Your task to perform on an android device: Open Chrome and go to the settings page Image 0: 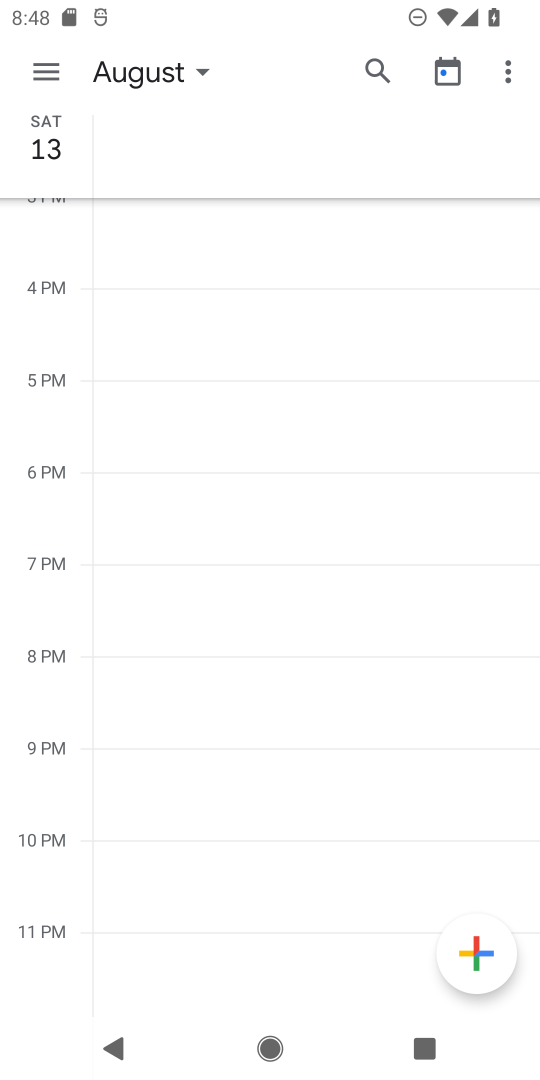
Step 0: press home button
Your task to perform on an android device: Open Chrome and go to the settings page Image 1: 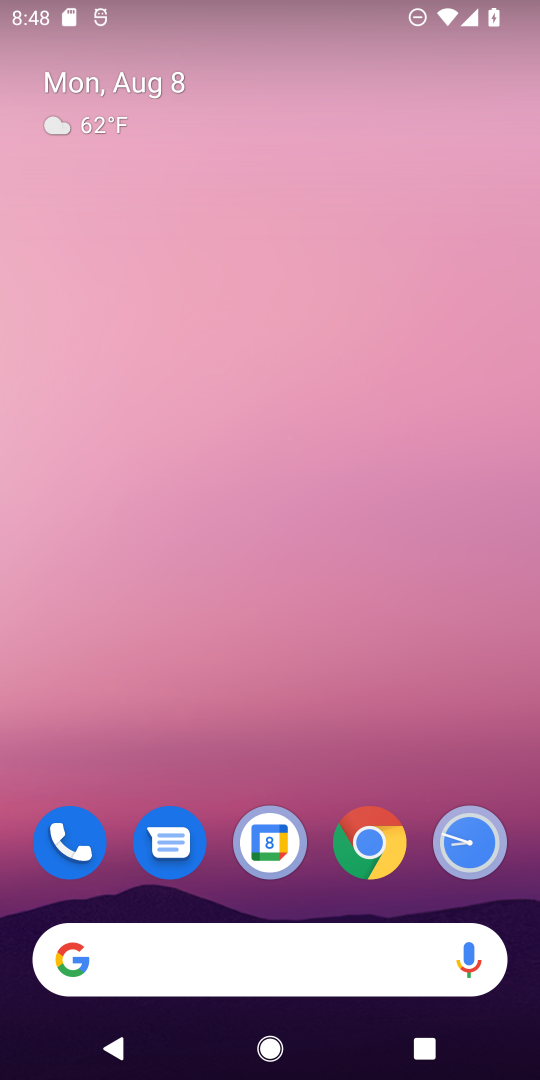
Step 1: click (371, 842)
Your task to perform on an android device: Open Chrome and go to the settings page Image 2: 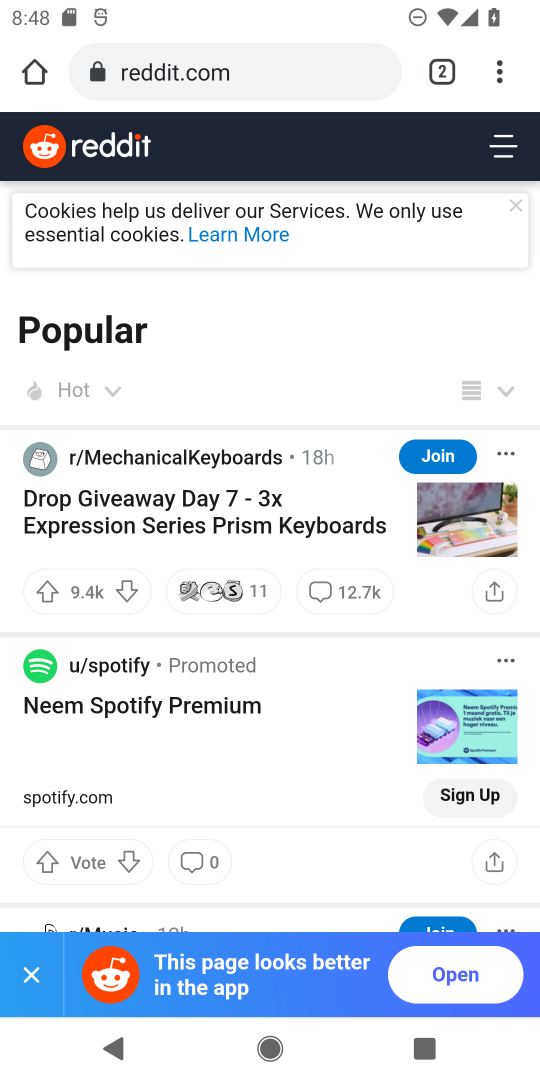
Step 2: click (500, 68)
Your task to perform on an android device: Open Chrome and go to the settings page Image 3: 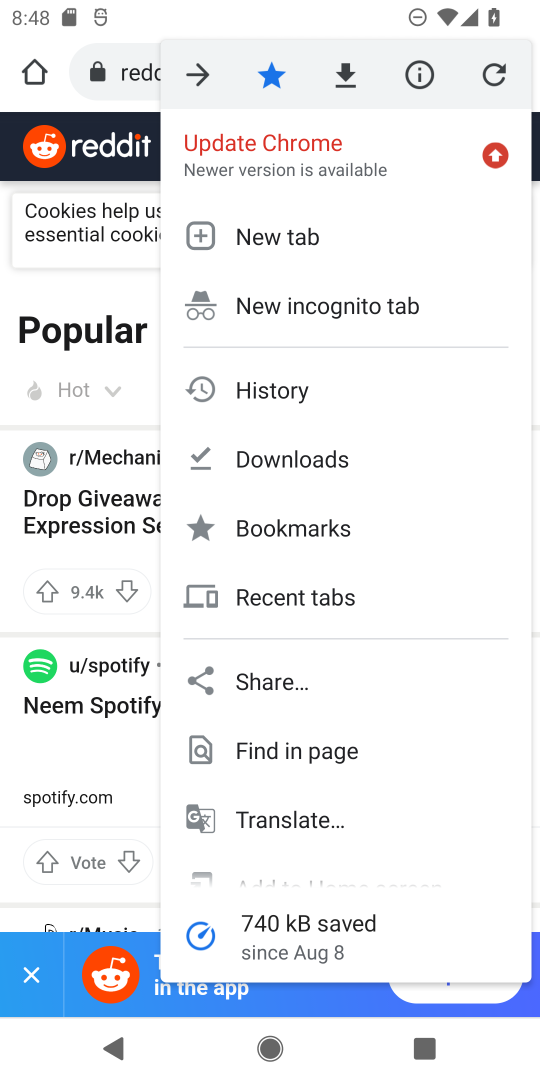
Step 3: drag from (354, 771) to (374, 218)
Your task to perform on an android device: Open Chrome and go to the settings page Image 4: 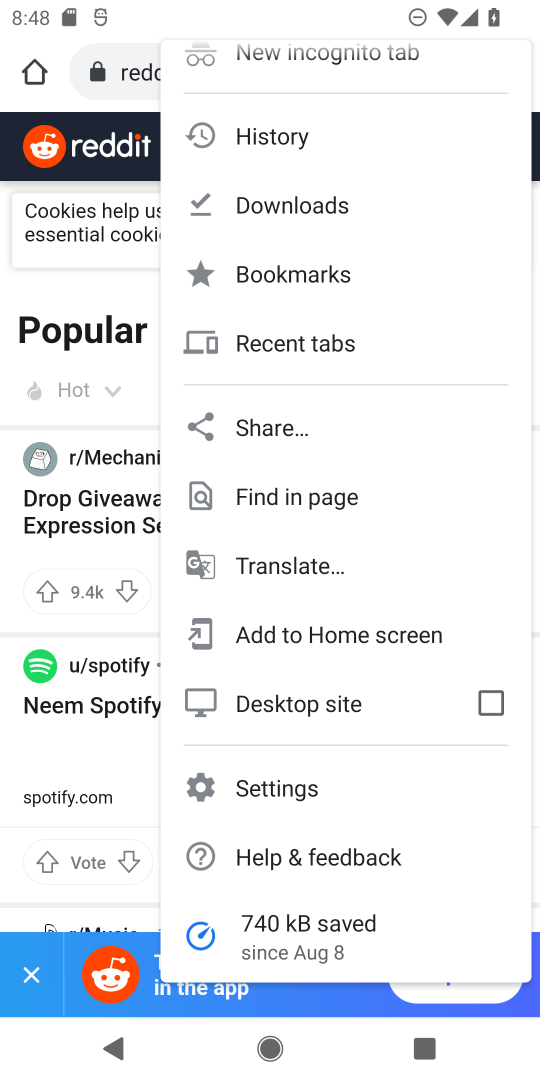
Step 4: click (323, 770)
Your task to perform on an android device: Open Chrome and go to the settings page Image 5: 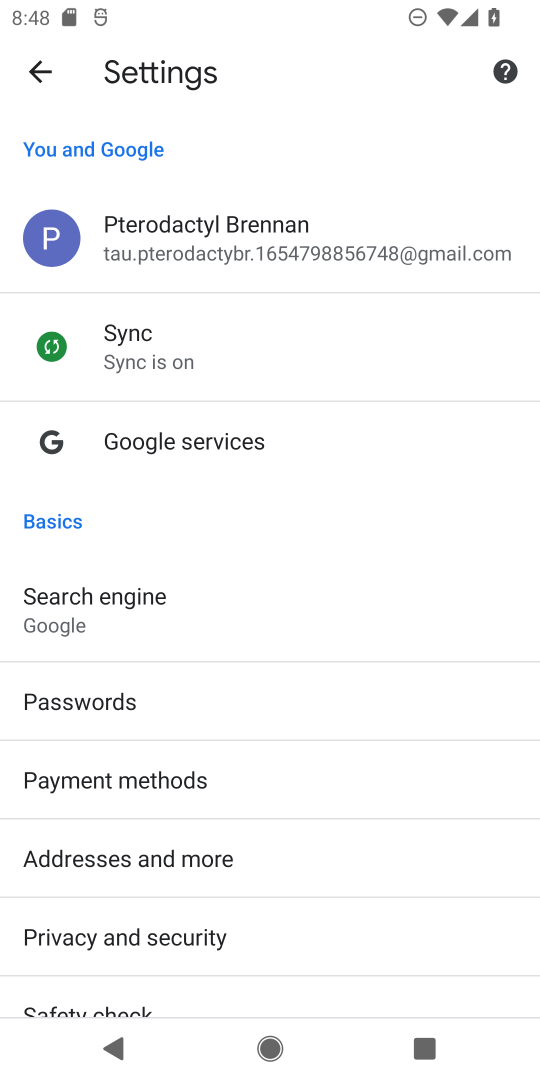
Step 5: task complete